Your task to perform on an android device: change timer sound Image 0: 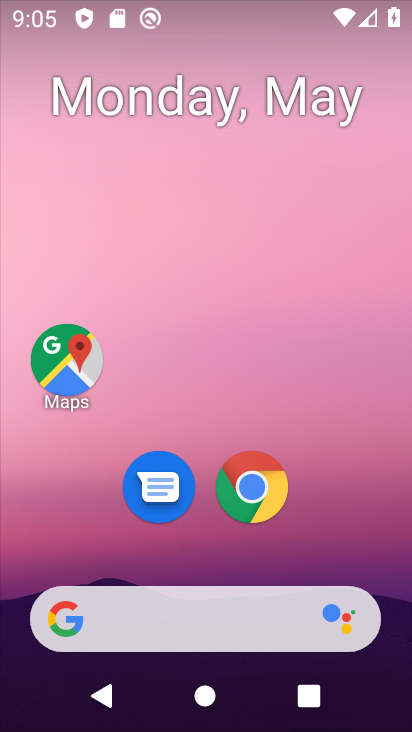
Step 0: drag from (199, 538) to (239, 68)
Your task to perform on an android device: change timer sound Image 1: 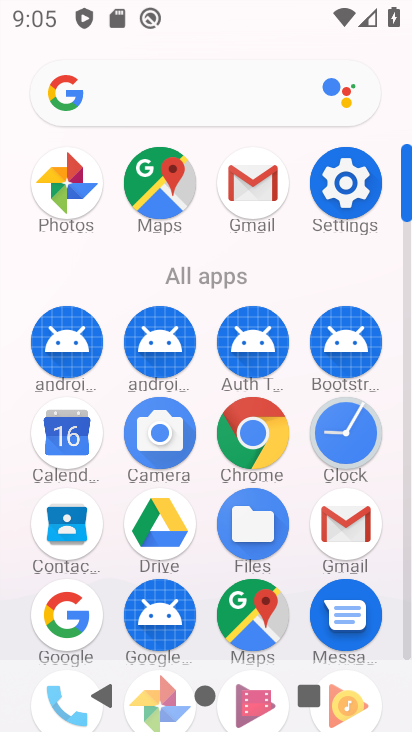
Step 1: click (349, 426)
Your task to perform on an android device: change timer sound Image 2: 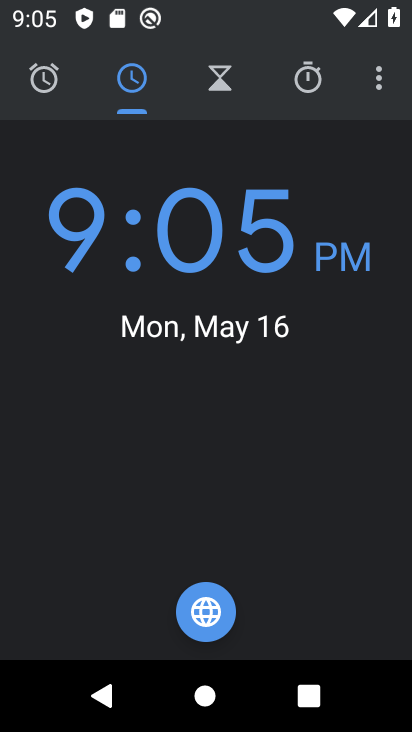
Step 2: click (369, 76)
Your task to perform on an android device: change timer sound Image 3: 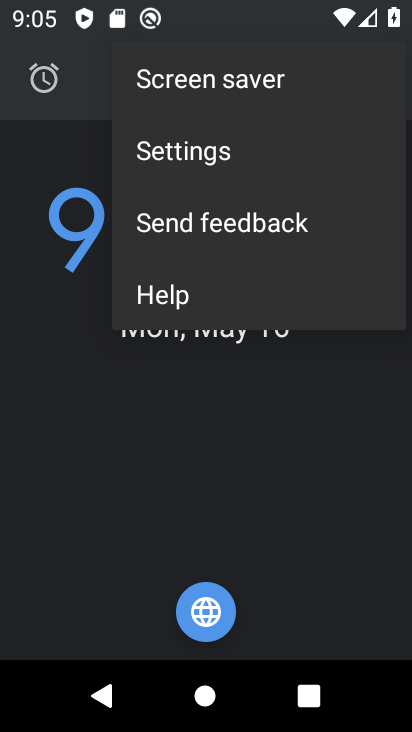
Step 3: click (194, 160)
Your task to perform on an android device: change timer sound Image 4: 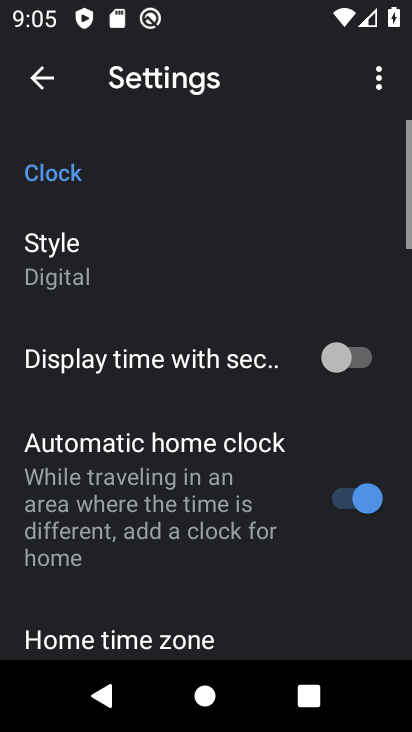
Step 4: drag from (198, 424) to (209, 44)
Your task to perform on an android device: change timer sound Image 5: 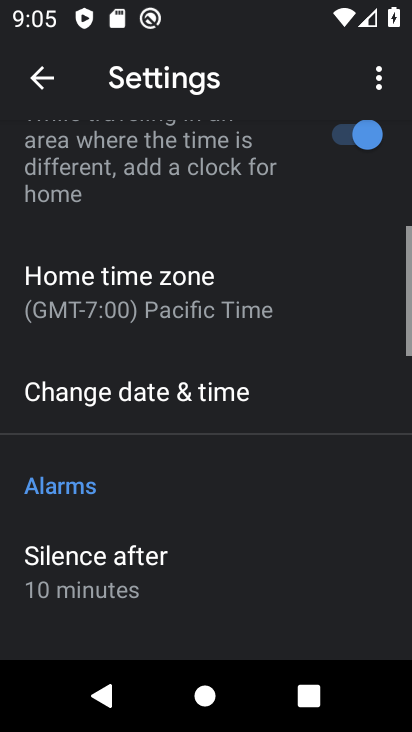
Step 5: drag from (169, 510) to (167, 13)
Your task to perform on an android device: change timer sound Image 6: 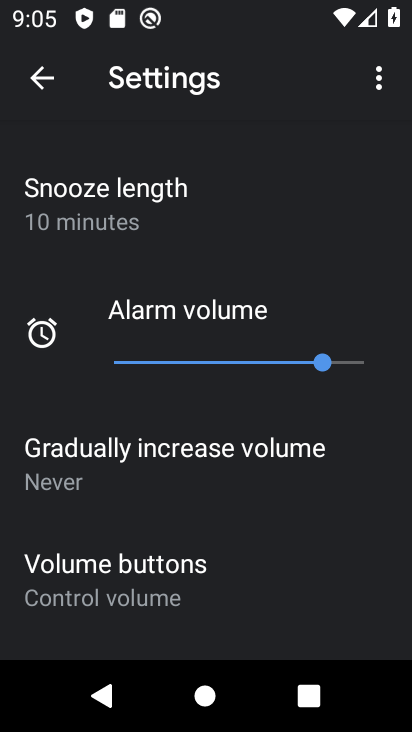
Step 6: drag from (205, 566) to (231, 176)
Your task to perform on an android device: change timer sound Image 7: 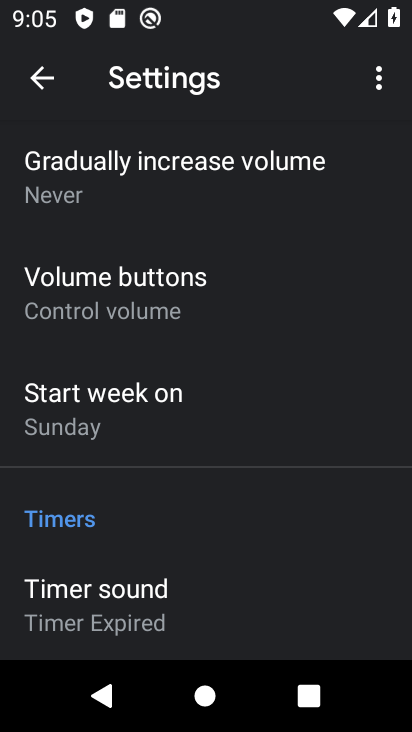
Step 7: click (148, 600)
Your task to perform on an android device: change timer sound Image 8: 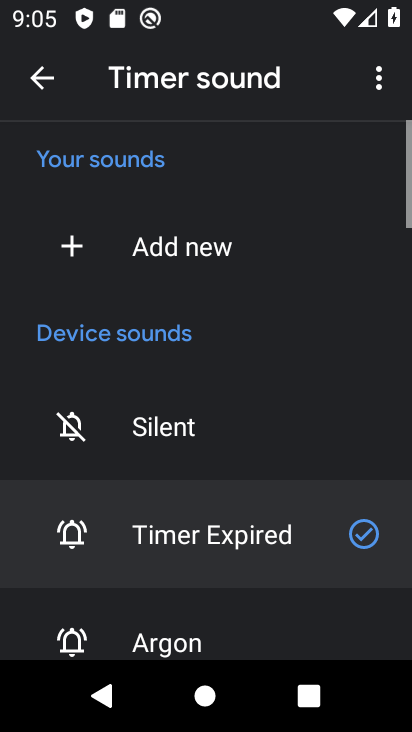
Step 8: click (168, 612)
Your task to perform on an android device: change timer sound Image 9: 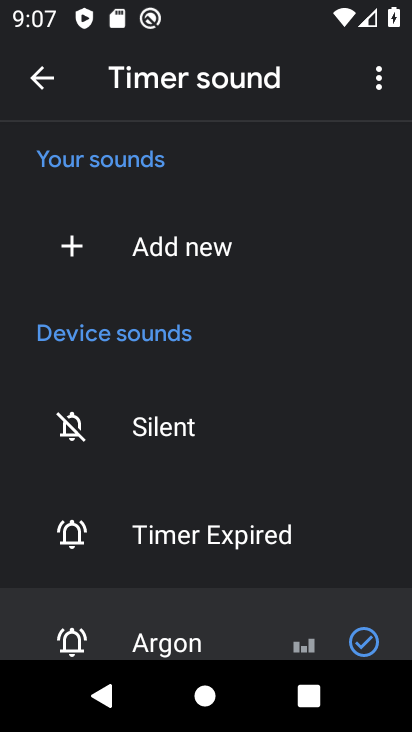
Step 9: task complete